Your task to perform on an android device: Search for Mexican restaurants on Maps Image 0: 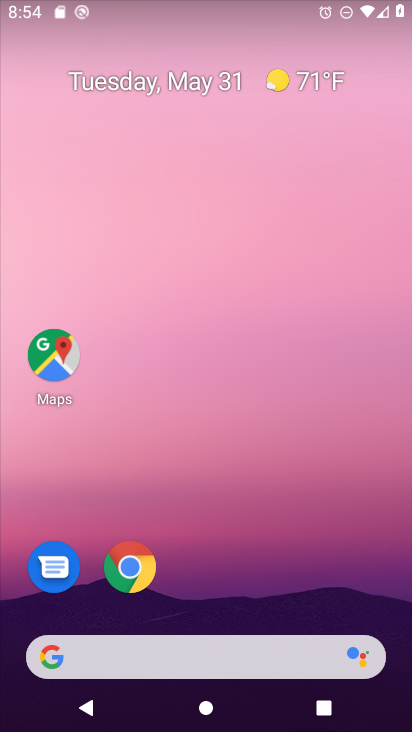
Step 0: click (48, 352)
Your task to perform on an android device: Search for Mexican restaurants on Maps Image 1: 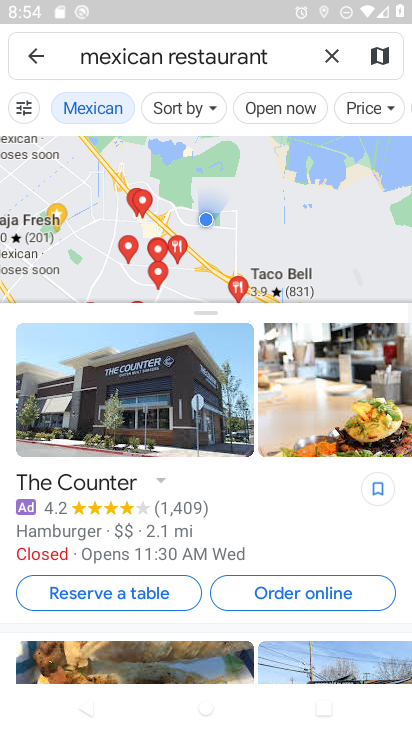
Step 1: task complete